Your task to perform on an android device: Go to Yahoo.com Image 0: 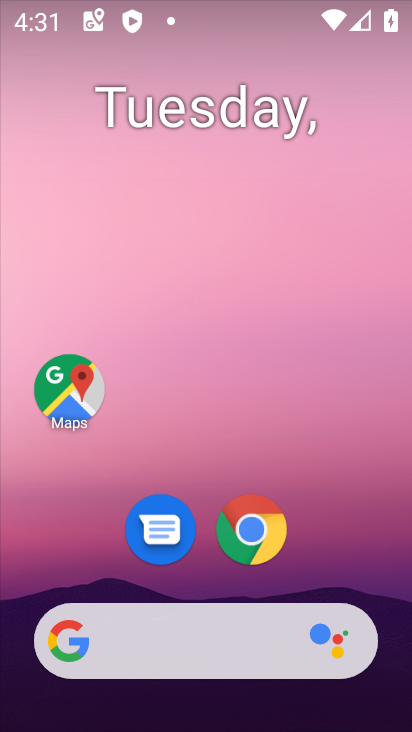
Step 0: drag from (317, 519) to (290, 22)
Your task to perform on an android device: Go to Yahoo.com Image 1: 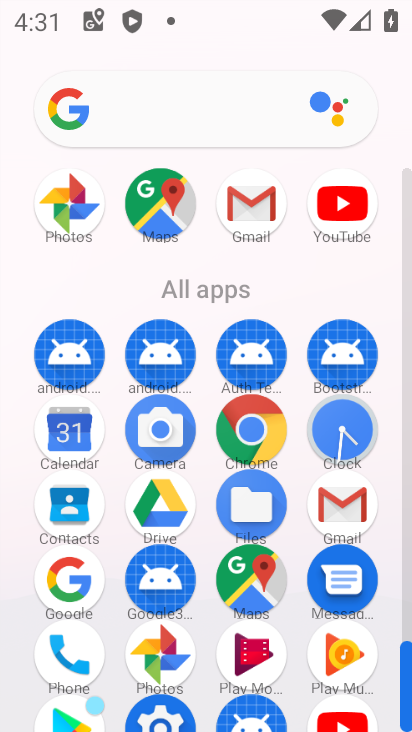
Step 1: click (249, 428)
Your task to perform on an android device: Go to Yahoo.com Image 2: 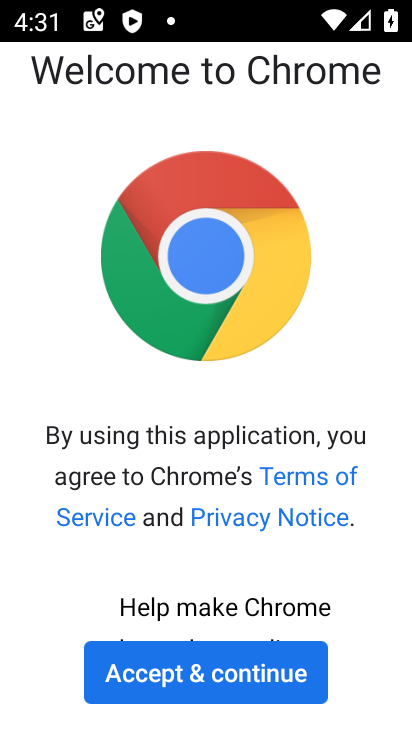
Step 2: click (208, 682)
Your task to perform on an android device: Go to Yahoo.com Image 3: 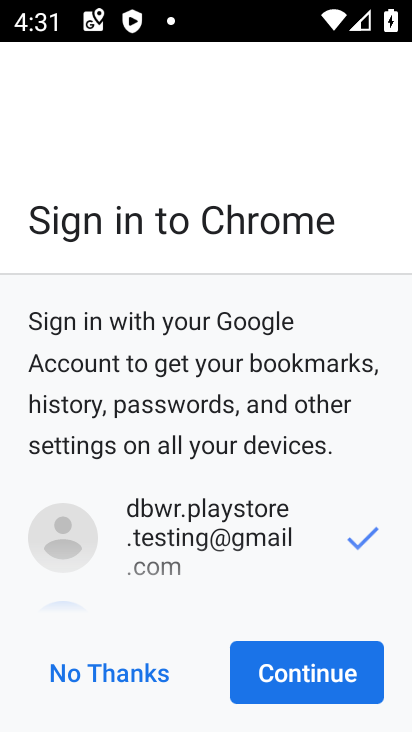
Step 3: click (292, 661)
Your task to perform on an android device: Go to Yahoo.com Image 4: 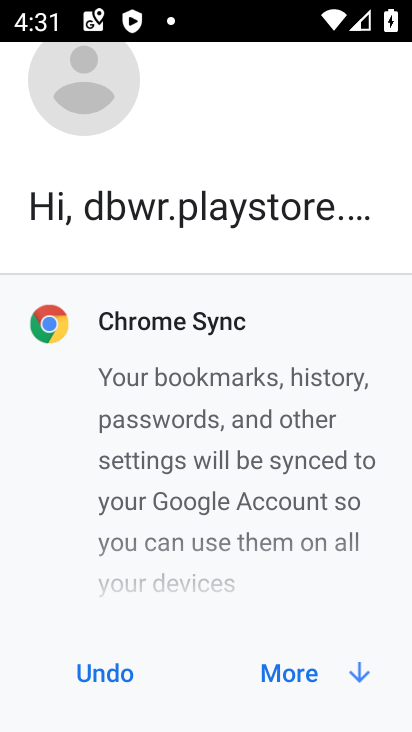
Step 4: click (301, 664)
Your task to perform on an android device: Go to Yahoo.com Image 5: 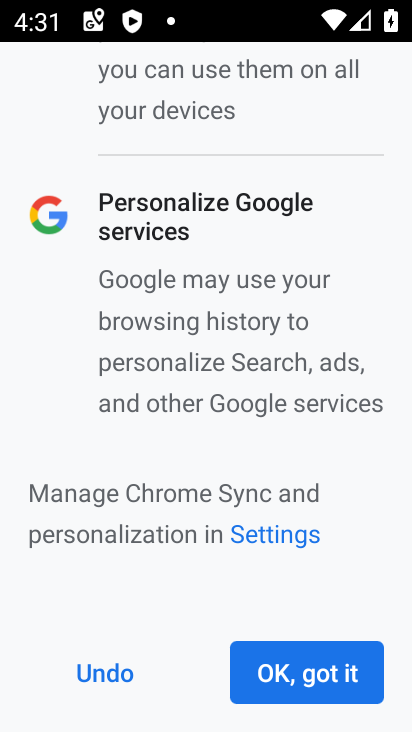
Step 5: click (301, 664)
Your task to perform on an android device: Go to Yahoo.com Image 6: 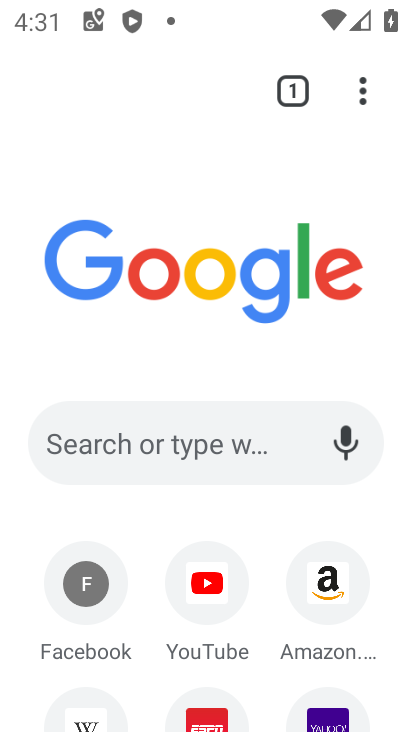
Step 6: click (120, 440)
Your task to perform on an android device: Go to Yahoo.com Image 7: 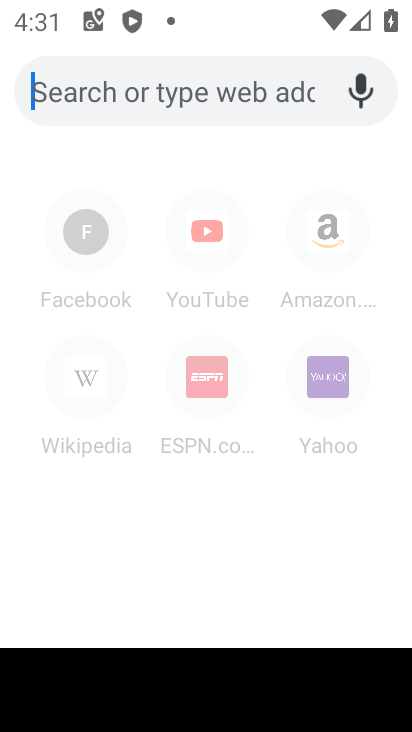
Step 7: click (334, 398)
Your task to perform on an android device: Go to Yahoo.com Image 8: 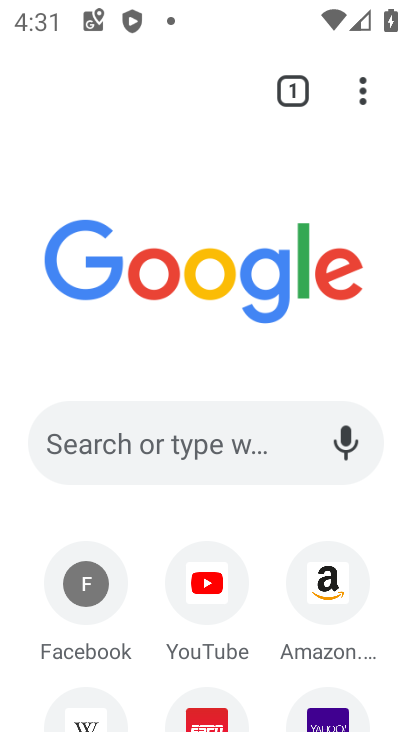
Step 8: click (321, 712)
Your task to perform on an android device: Go to Yahoo.com Image 9: 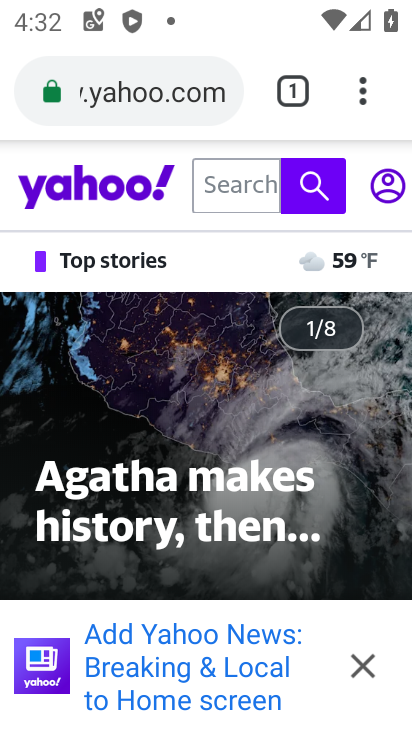
Step 9: task complete